Your task to perform on an android device: Go to Reddit.com Image 0: 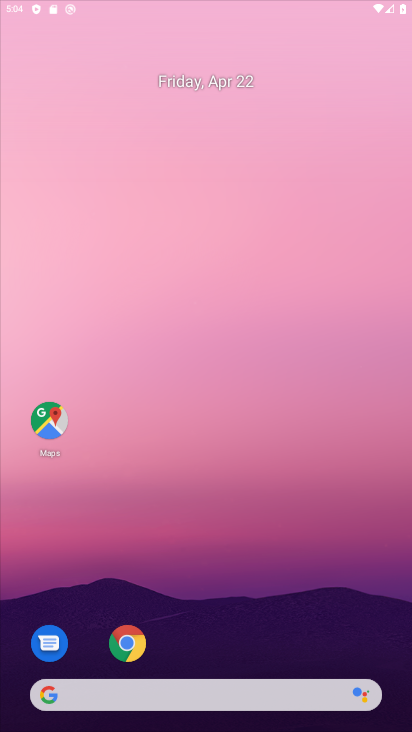
Step 0: click (331, 344)
Your task to perform on an android device: Go to Reddit.com Image 1: 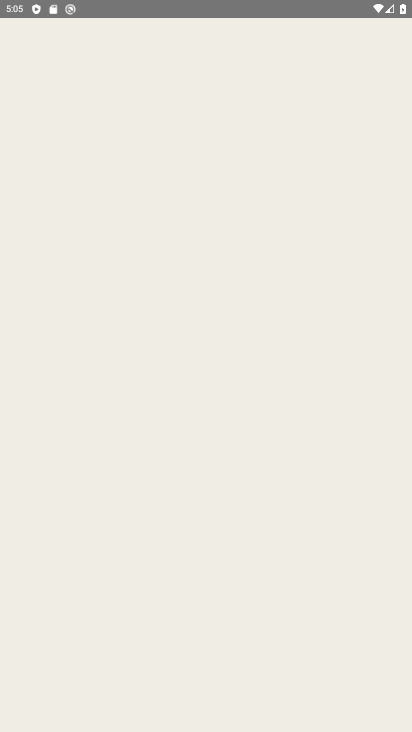
Step 1: press home button
Your task to perform on an android device: Go to Reddit.com Image 2: 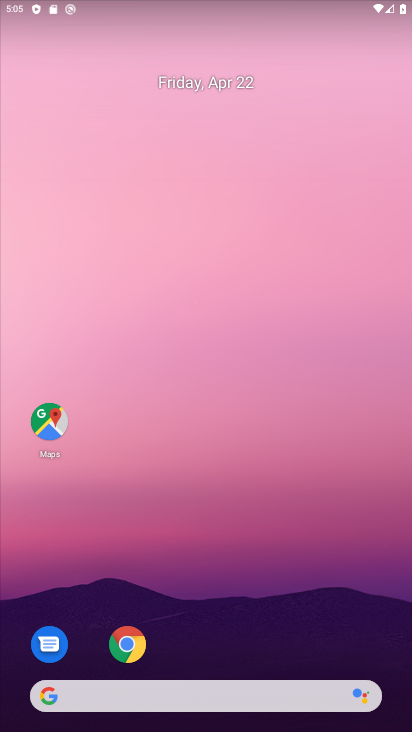
Step 2: click (129, 644)
Your task to perform on an android device: Go to Reddit.com Image 3: 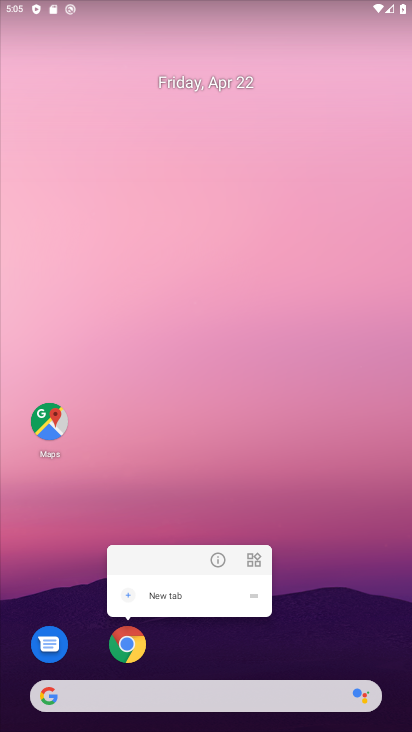
Step 3: click (130, 641)
Your task to perform on an android device: Go to Reddit.com Image 4: 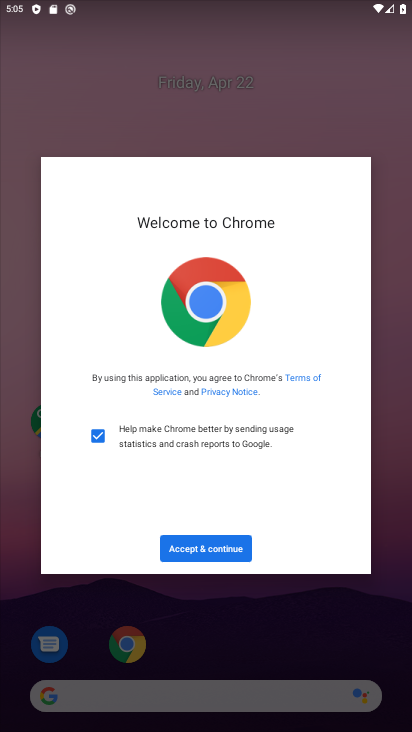
Step 4: click (214, 545)
Your task to perform on an android device: Go to Reddit.com Image 5: 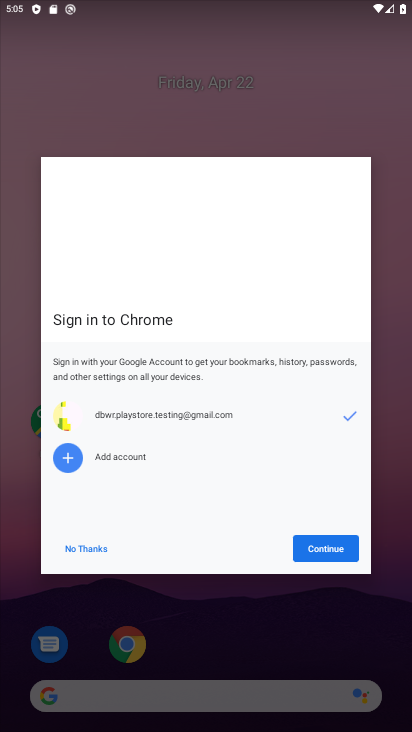
Step 5: click (308, 537)
Your task to perform on an android device: Go to Reddit.com Image 6: 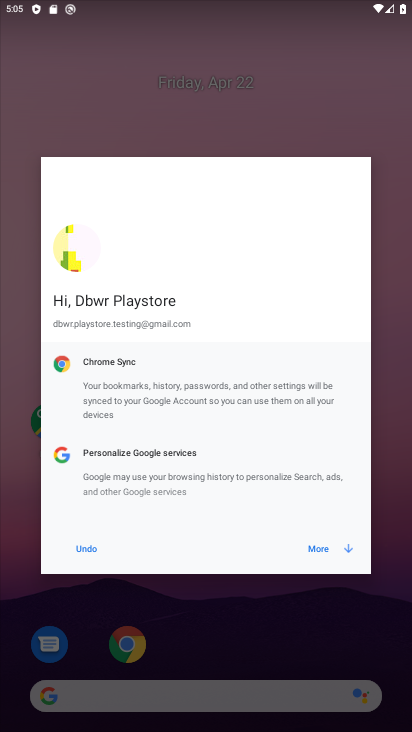
Step 6: click (330, 549)
Your task to perform on an android device: Go to Reddit.com Image 7: 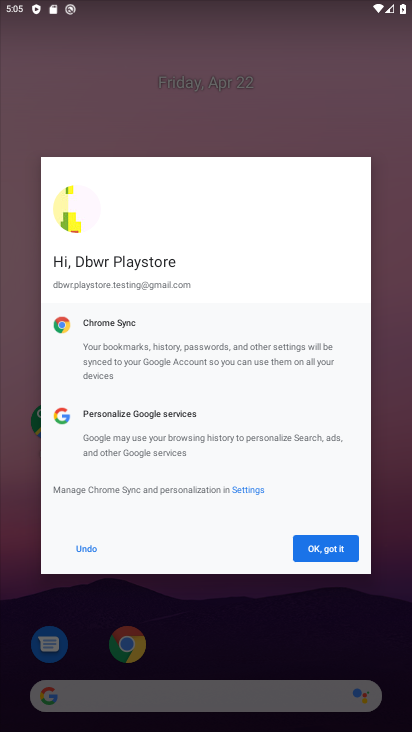
Step 7: click (329, 544)
Your task to perform on an android device: Go to Reddit.com Image 8: 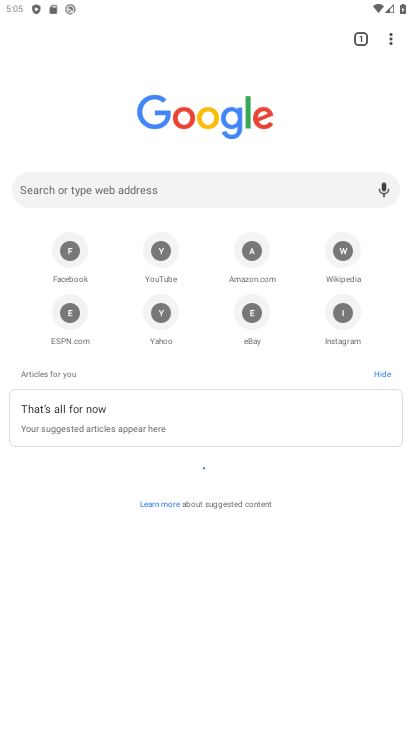
Step 8: click (177, 185)
Your task to perform on an android device: Go to Reddit.com Image 9: 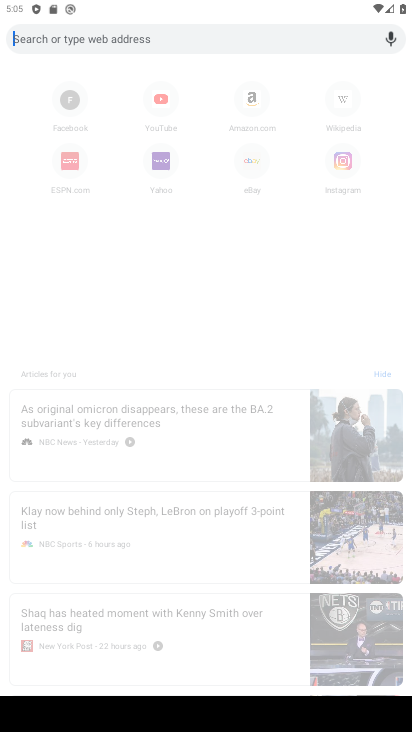
Step 9: type "reddit.com"
Your task to perform on an android device: Go to Reddit.com Image 10: 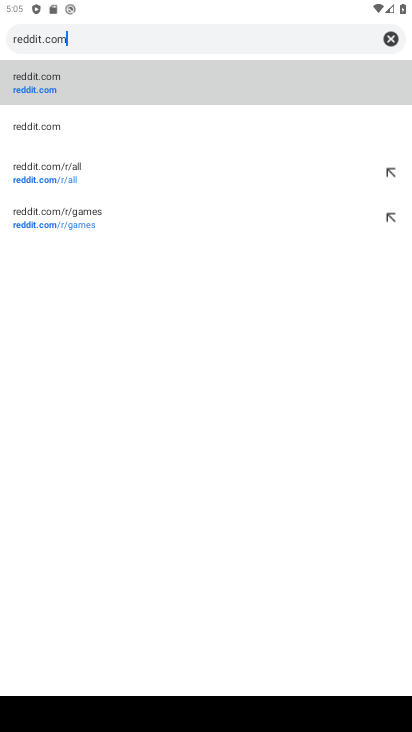
Step 10: click (76, 75)
Your task to perform on an android device: Go to Reddit.com Image 11: 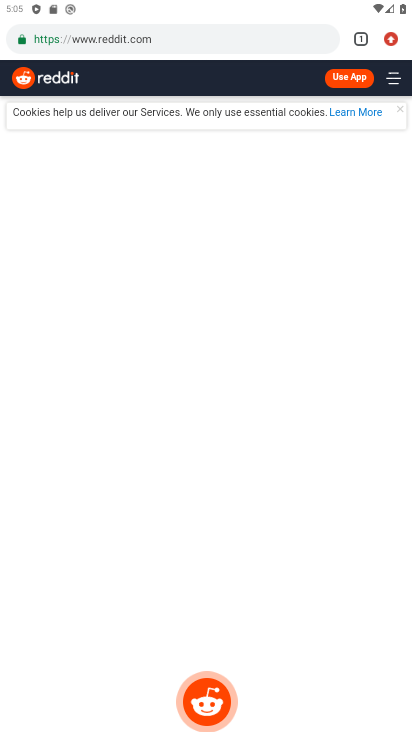
Step 11: task complete